Your task to perform on an android device: change alarm snooze length Image 0: 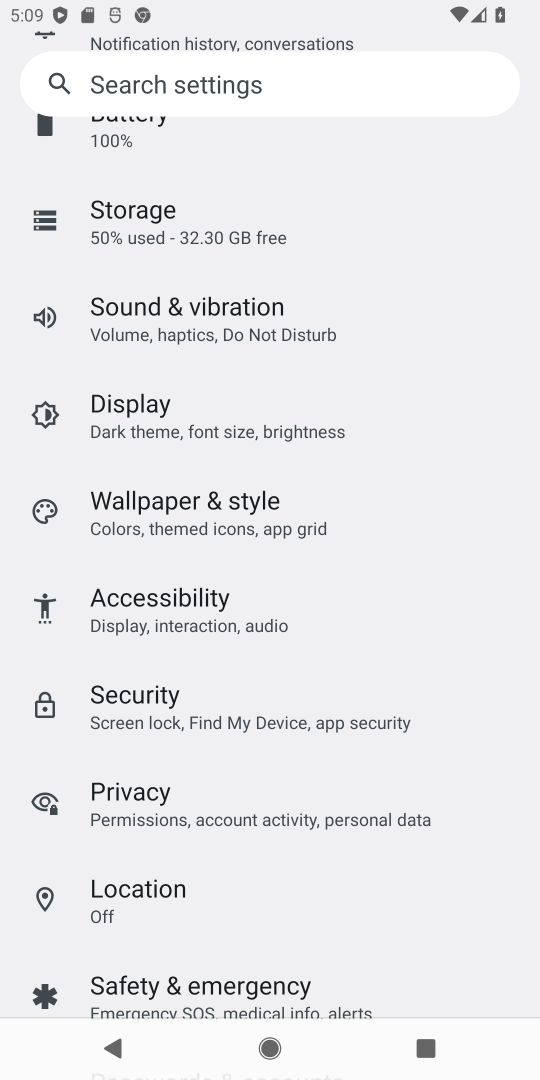
Step 0: press home button
Your task to perform on an android device: change alarm snooze length Image 1: 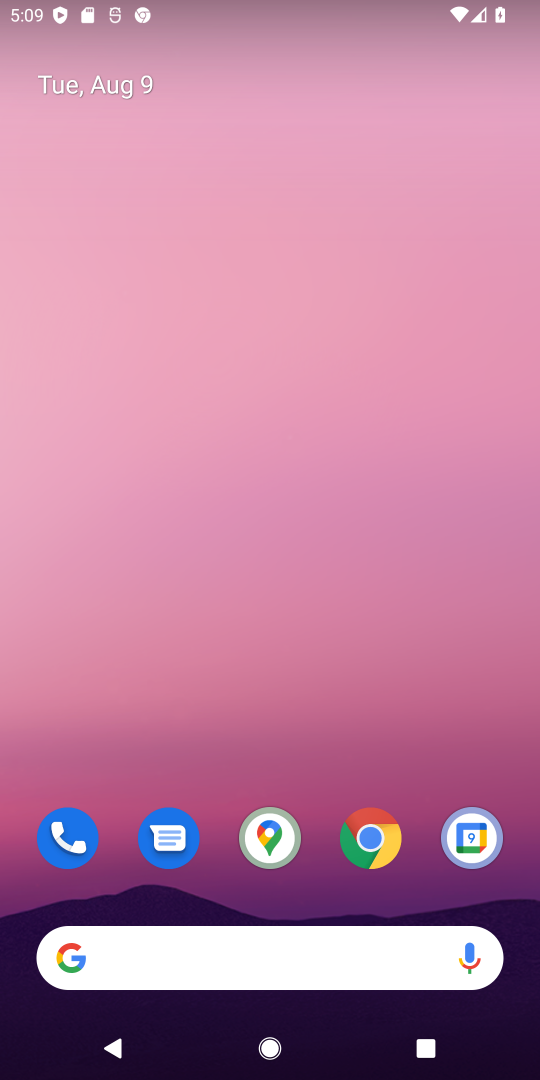
Step 1: drag from (384, 761) to (251, 236)
Your task to perform on an android device: change alarm snooze length Image 2: 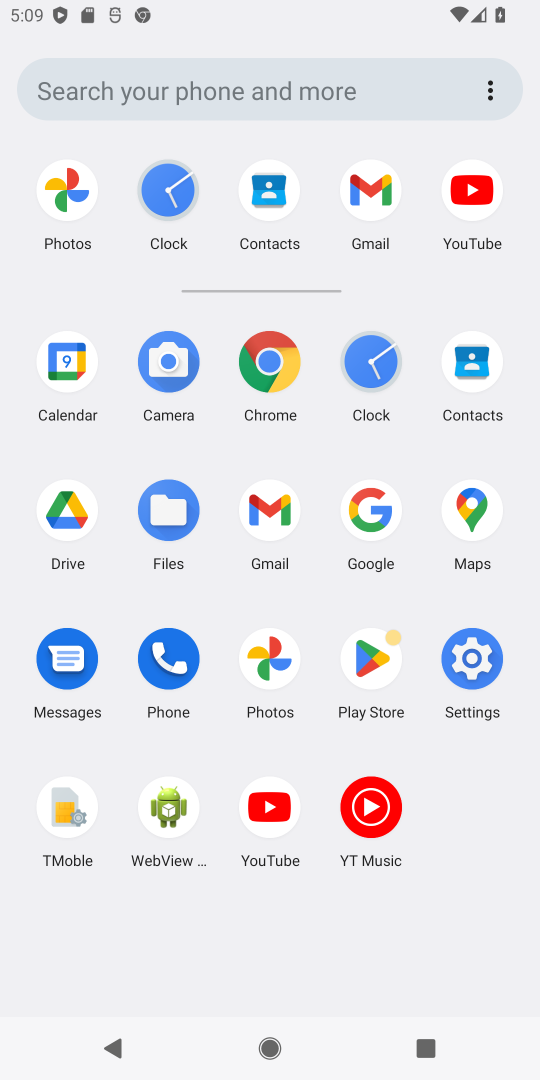
Step 2: click (354, 388)
Your task to perform on an android device: change alarm snooze length Image 3: 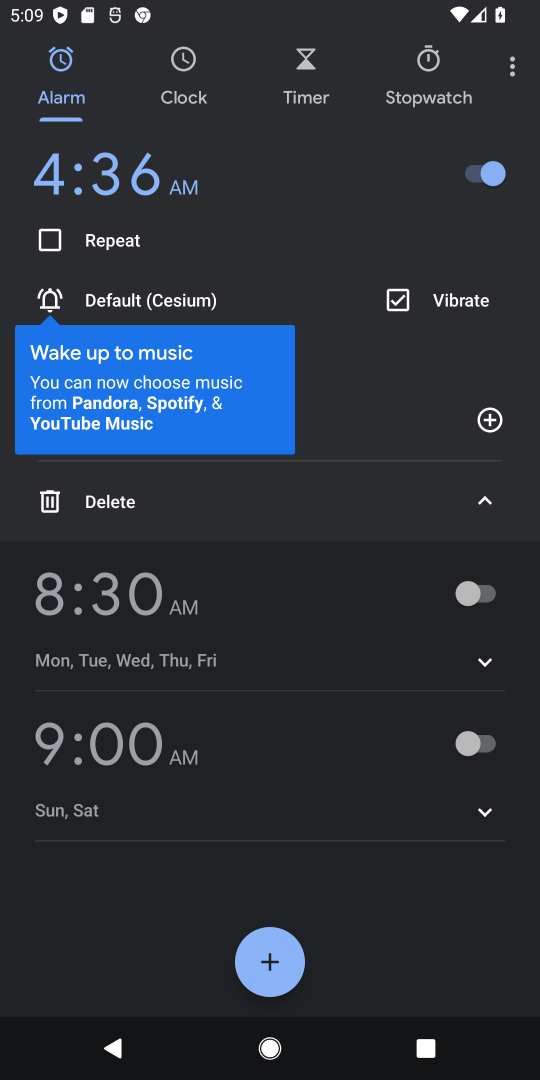
Step 3: click (504, 90)
Your task to perform on an android device: change alarm snooze length Image 4: 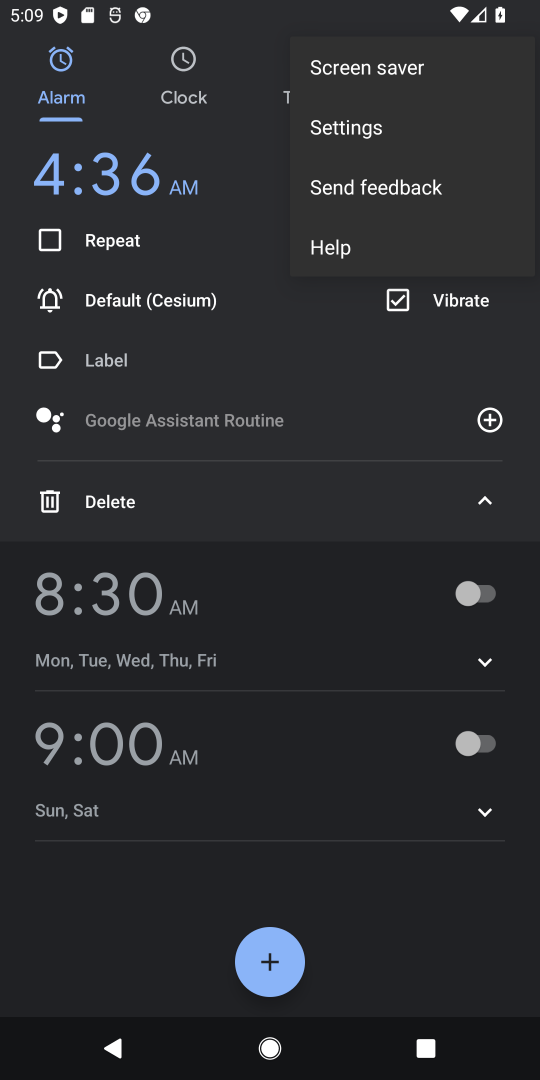
Step 4: click (408, 141)
Your task to perform on an android device: change alarm snooze length Image 5: 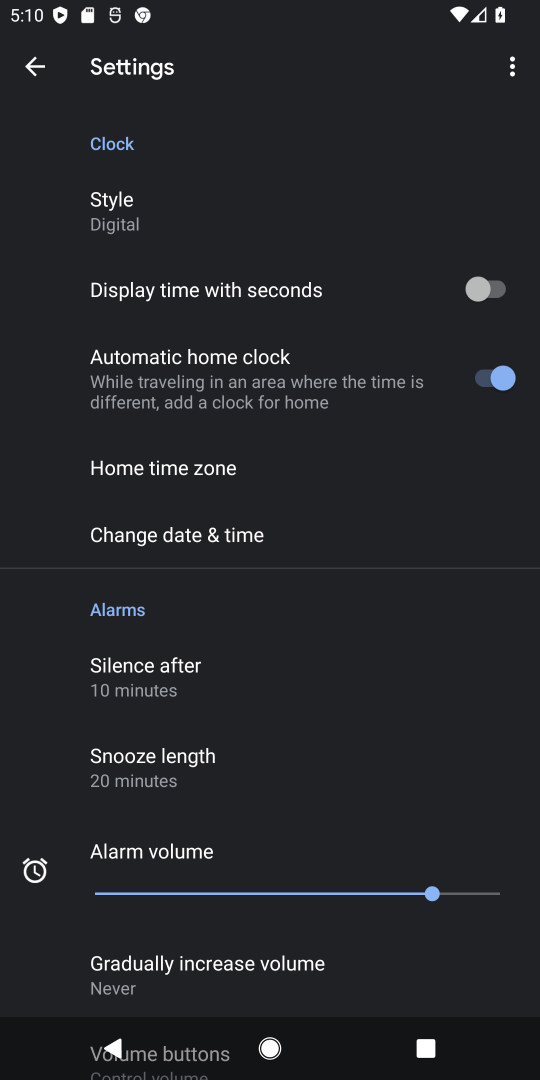
Step 5: click (251, 784)
Your task to perform on an android device: change alarm snooze length Image 6: 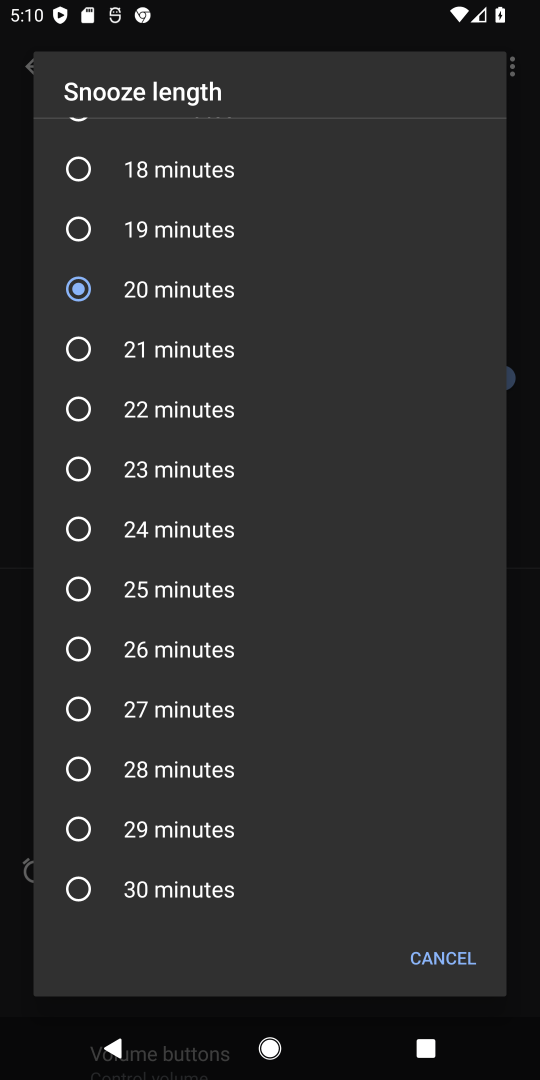
Step 6: click (251, 784)
Your task to perform on an android device: change alarm snooze length Image 7: 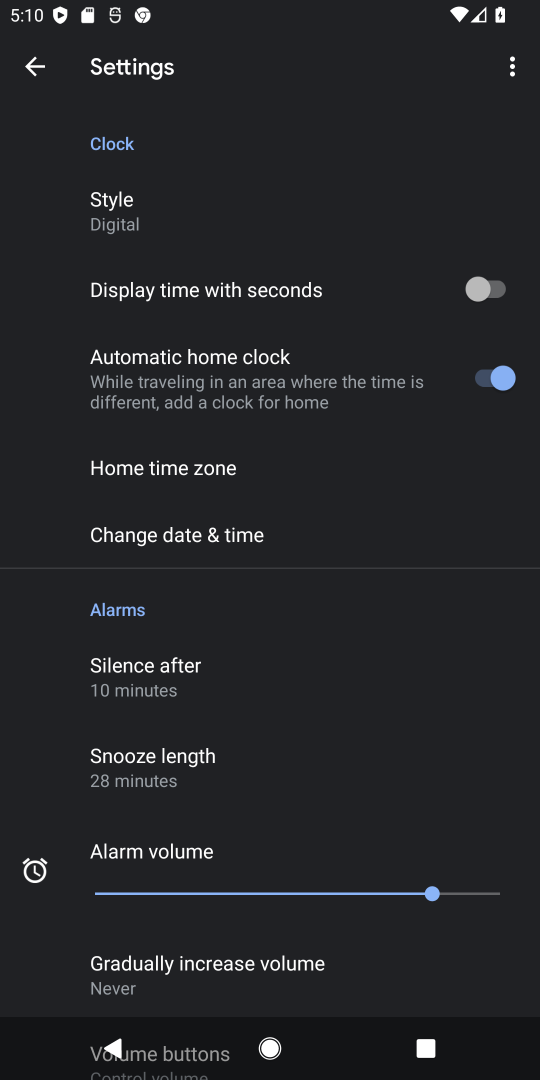
Step 7: task complete